Your task to perform on an android device: search for starred emails in the gmail app Image 0: 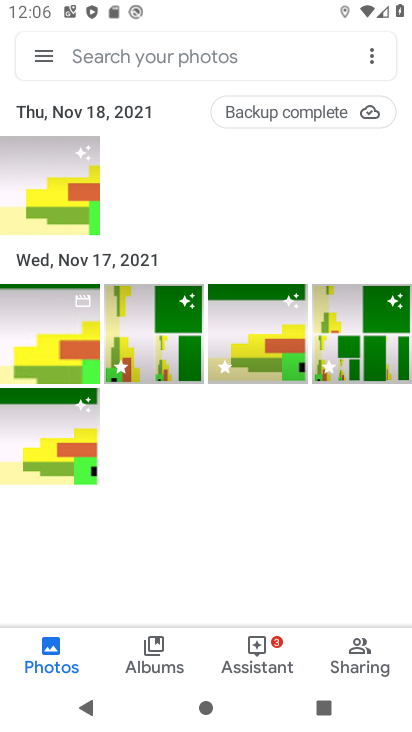
Step 0: press home button
Your task to perform on an android device: search for starred emails in the gmail app Image 1: 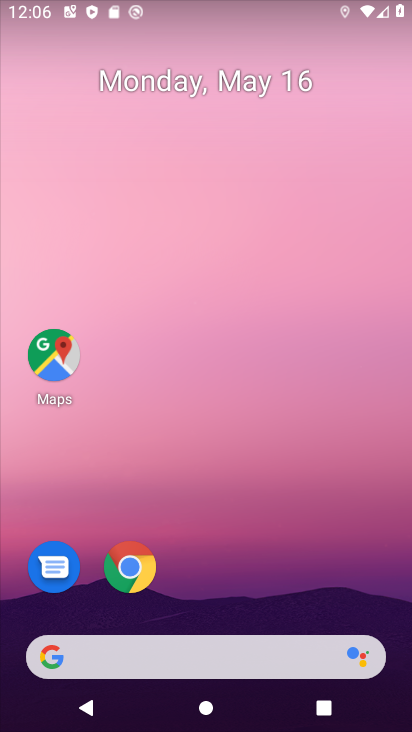
Step 1: drag from (340, 520) to (320, 39)
Your task to perform on an android device: search for starred emails in the gmail app Image 2: 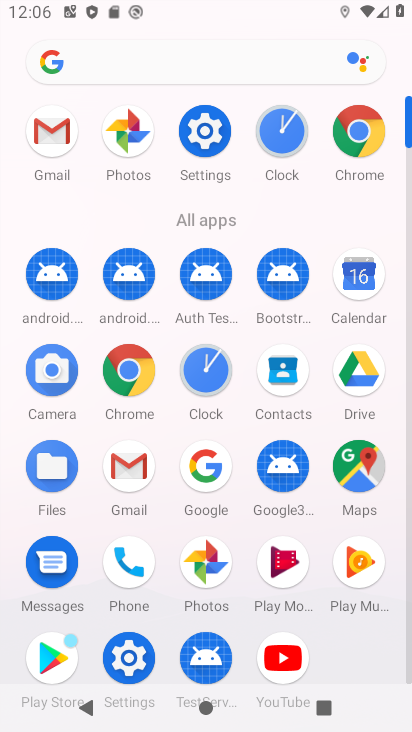
Step 2: click (57, 137)
Your task to perform on an android device: search for starred emails in the gmail app Image 3: 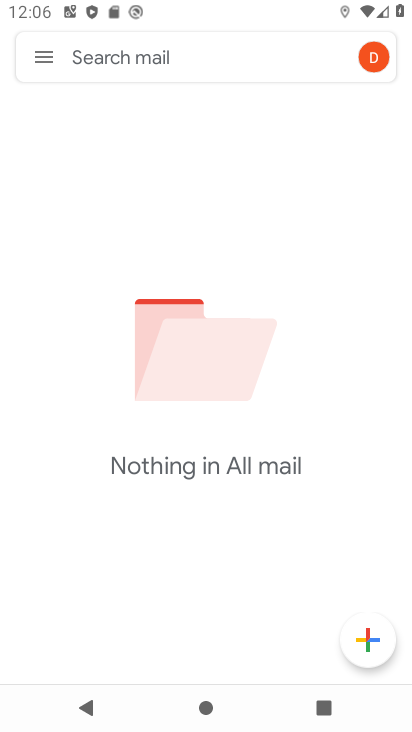
Step 3: click (31, 52)
Your task to perform on an android device: search for starred emails in the gmail app Image 4: 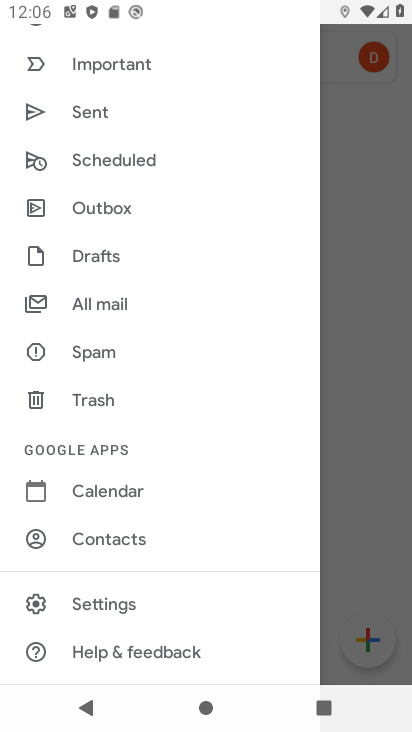
Step 4: drag from (215, 544) to (240, 579)
Your task to perform on an android device: search for starred emails in the gmail app Image 5: 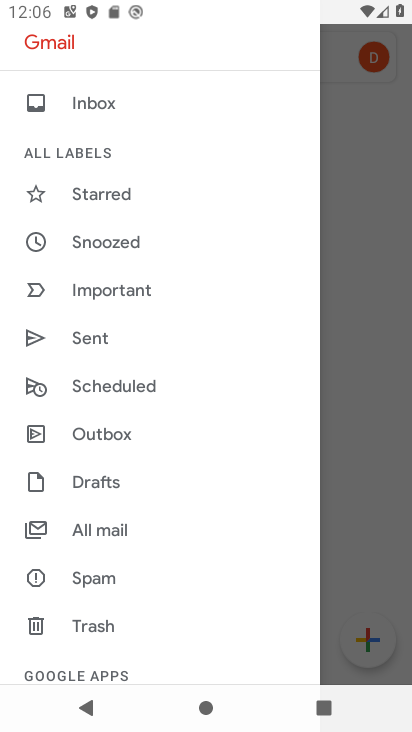
Step 5: click (100, 198)
Your task to perform on an android device: search for starred emails in the gmail app Image 6: 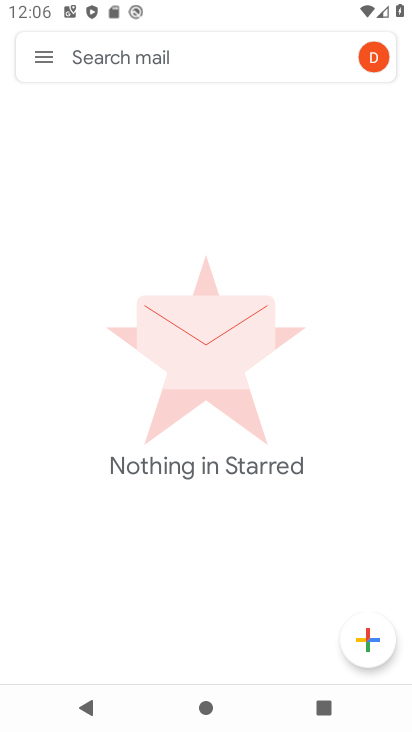
Step 6: task complete